Your task to perform on an android device: change the upload size in google photos Image 0: 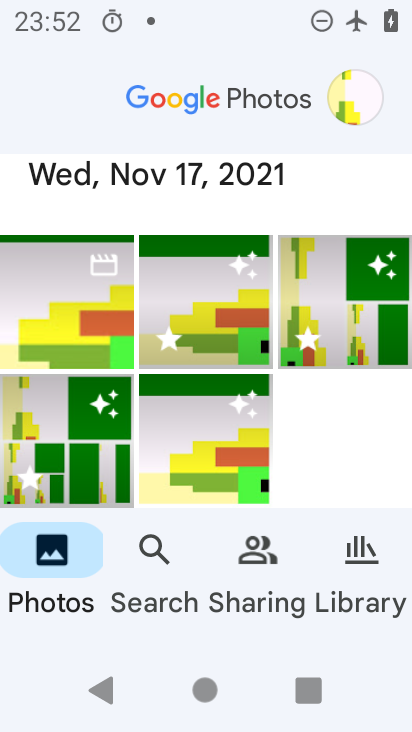
Step 0: click (369, 97)
Your task to perform on an android device: change the upload size in google photos Image 1: 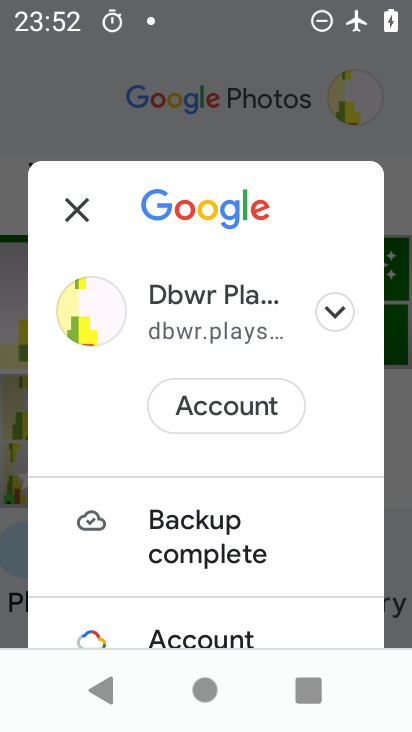
Step 1: drag from (210, 594) to (296, 205)
Your task to perform on an android device: change the upload size in google photos Image 2: 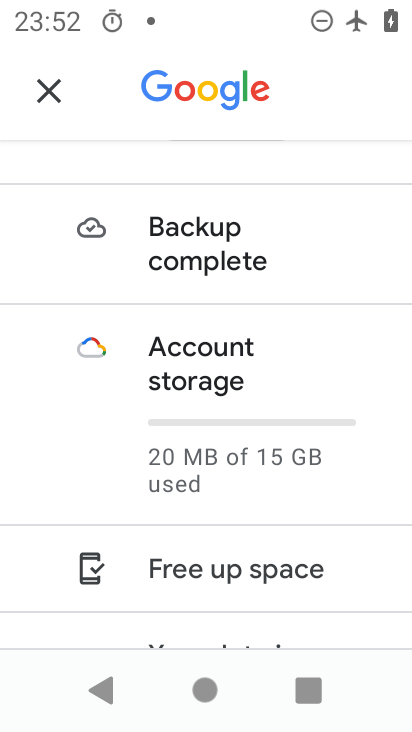
Step 2: drag from (221, 575) to (286, 276)
Your task to perform on an android device: change the upload size in google photos Image 3: 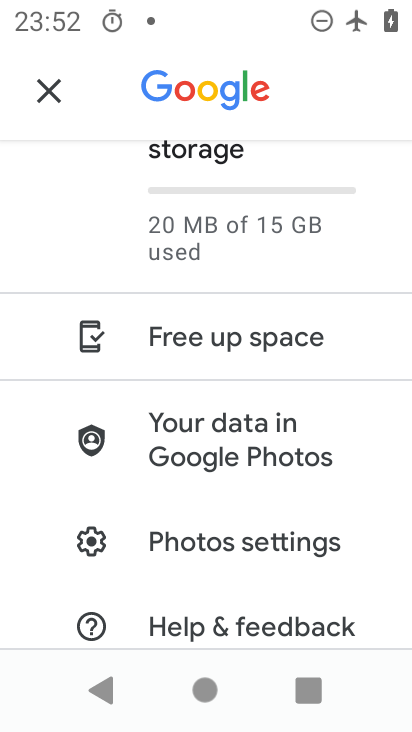
Step 3: click (210, 553)
Your task to perform on an android device: change the upload size in google photos Image 4: 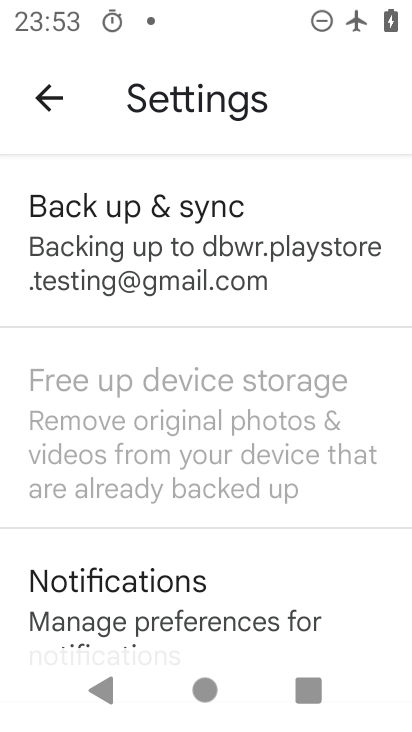
Step 4: click (148, 198)
Your task to perform on an android device: change the upload size in google photos Image 5: 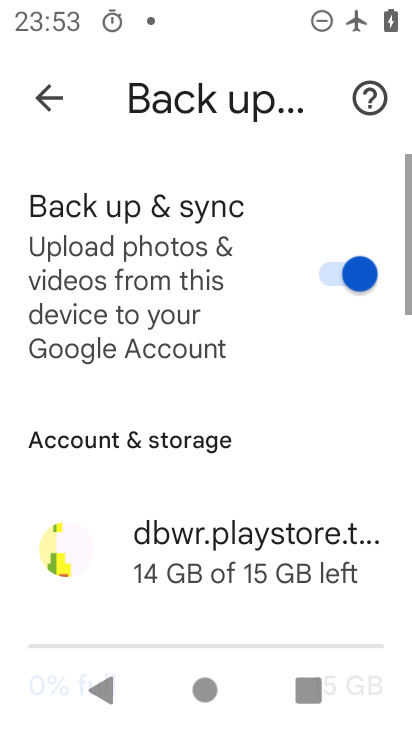
Step 5: drag from (264, 548) to (281, 96)
Your task to perform on an android device: change the upload size in google photos Image 6: 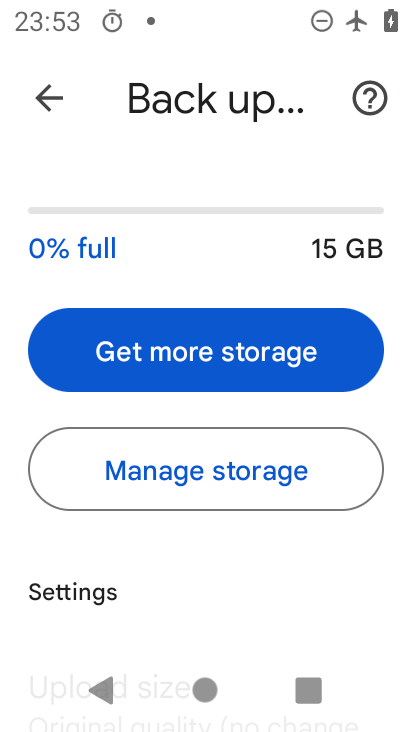
Step 6: drag from (216, 601) to (265, 166)
Your task to perform on an android device: change the upload size in google photos Image 7: 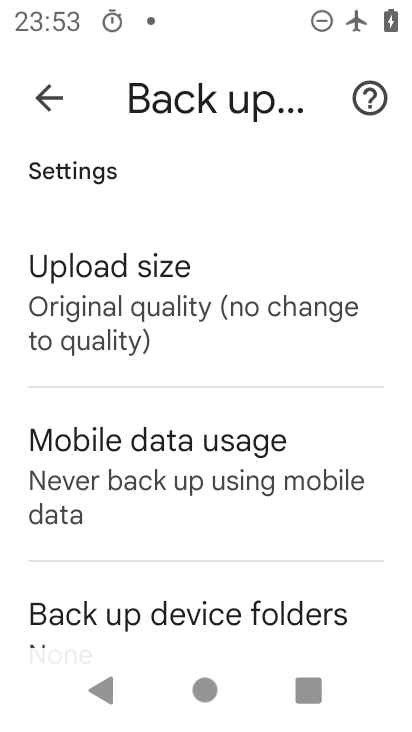
Step 7: click (134, 340)
Your task to perform on an android device: change the upload size in google photos Image 8: 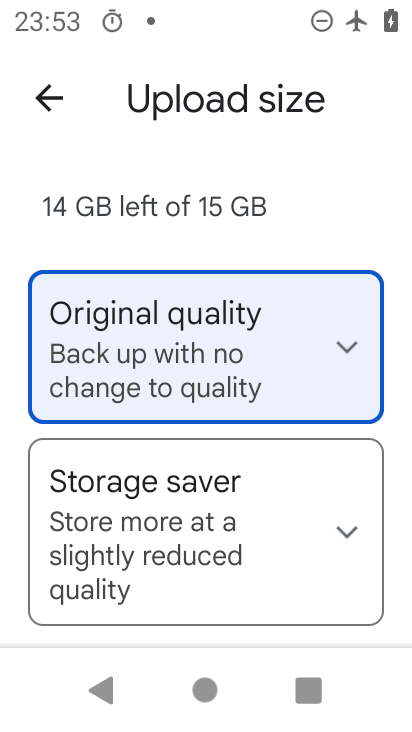
Step 8: drag from (207, 515) to (257, 239)
Your task to perform on an android device: change the upload size in google photos Image 9: 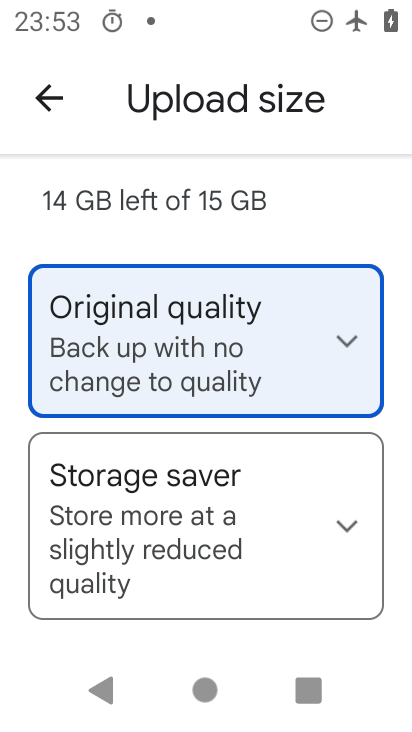
Step 9: click (225, 531)
Your task to perform on an android device: change the upload size in google photos Image 10: 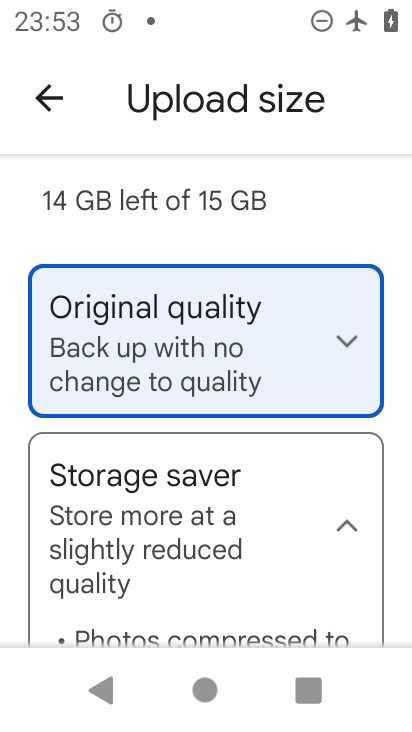
Step 10: drag from (247, 506) to (324, 289)
Your task to perform on an android device: change the upload size in google photos Image 11: 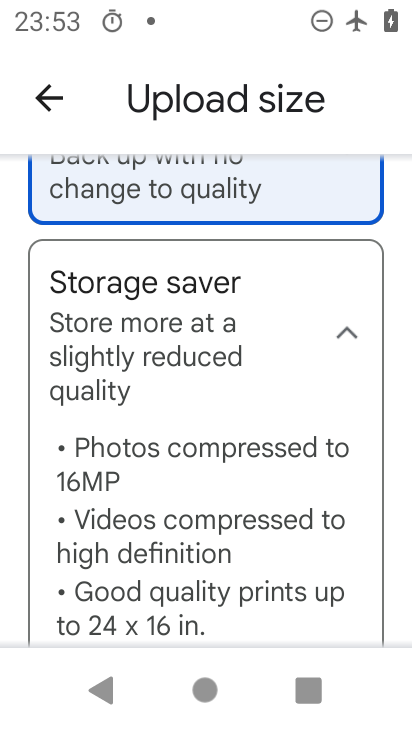
Step 11: drag from (236, 515) to (328, 276)
Your task to perform on an android device: change the upload size in google photos Image 12: 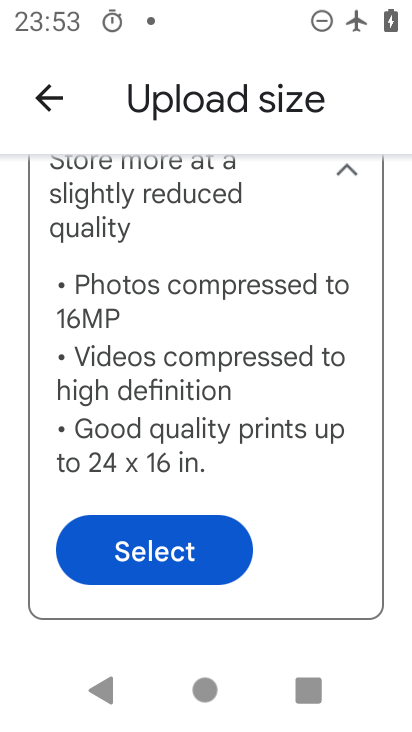
Step 12: click (114, 538)
Your task to perform on an android device: change the upload size in google photos Image 13: 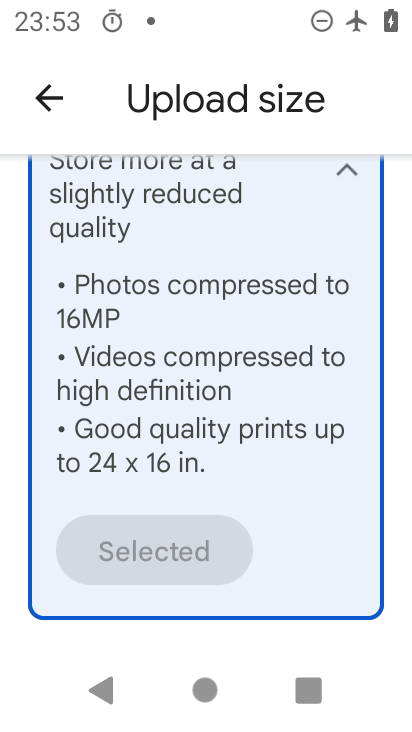
Step 13: task complete